Your task to perform on an android device: Turn off the flashlight Image 0: 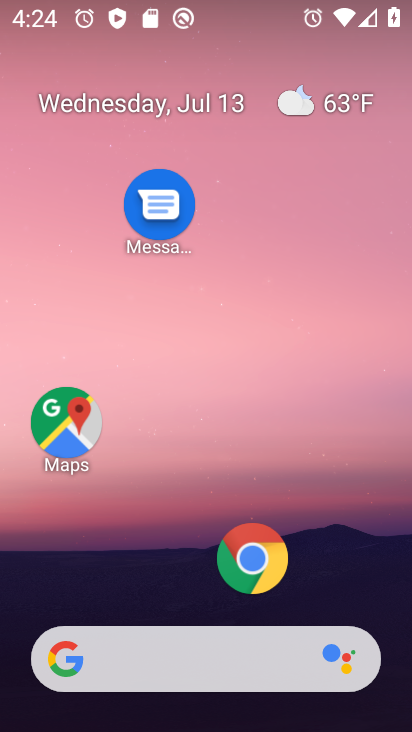
Step 0: drag from (223, 8) to (207, 534)
Your task to perform on an android device: Turn off the flashlight Image 1: 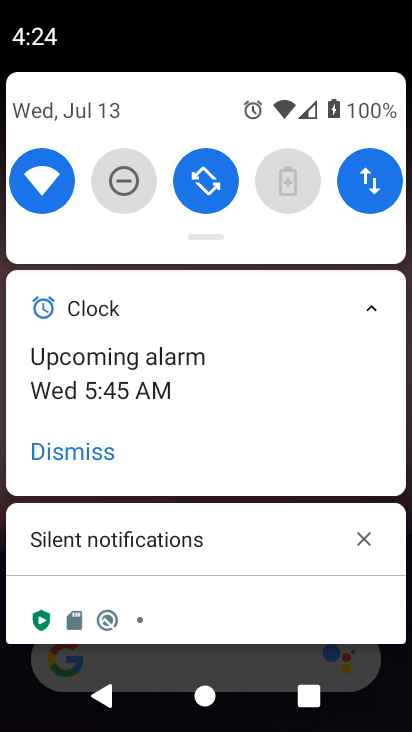
Step 1: drag from (212, 200) to (227, 501)
Your task to perform on an android device: Turn off the flashlight Image 2: 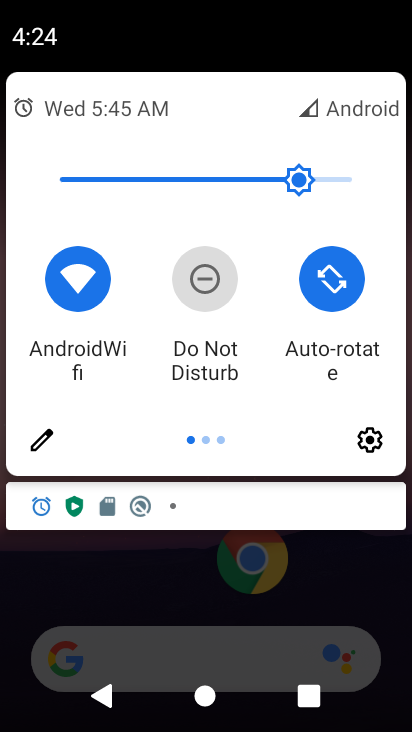
Step 2: drag from (318, 330) to (10, 322)
Your task to perform on an android device: Turn off the flashlight Image 3: 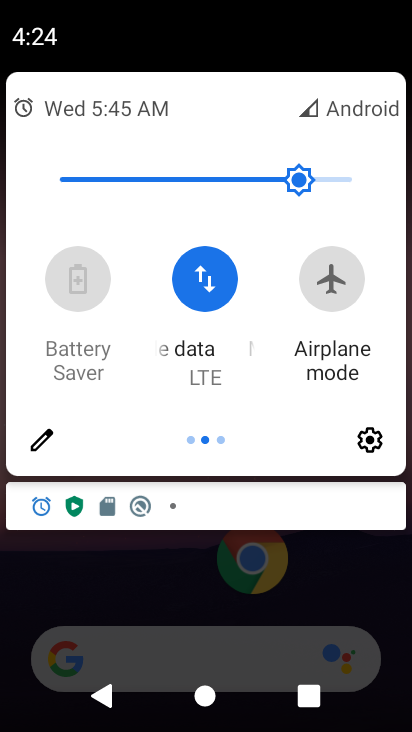
Step 3: drag from (319, 316) to (50, 406)
Your task to perform on an android device: Turn off the flashlight Image 4: 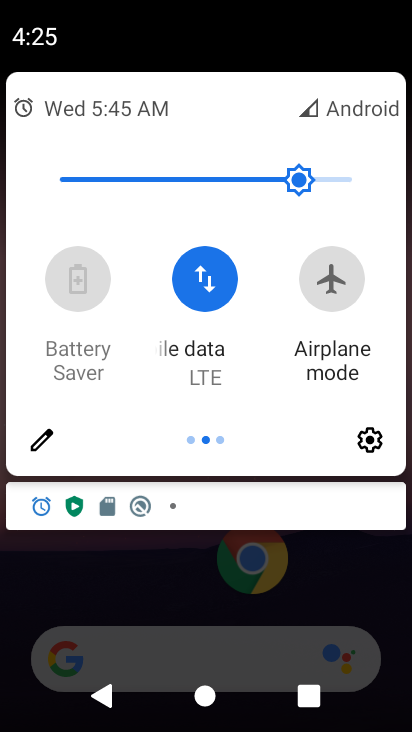
Step 4: drag from (359, 361) to (1, 453)
Your task to perform on an android device: Turn off the flashlight Image 5: 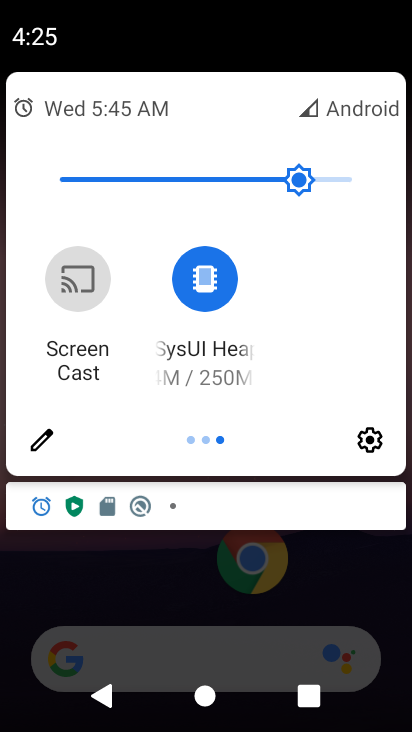
Step 5: click (42, 442)
Your task to perform on an android device: Turn off the flashlight Image 6: 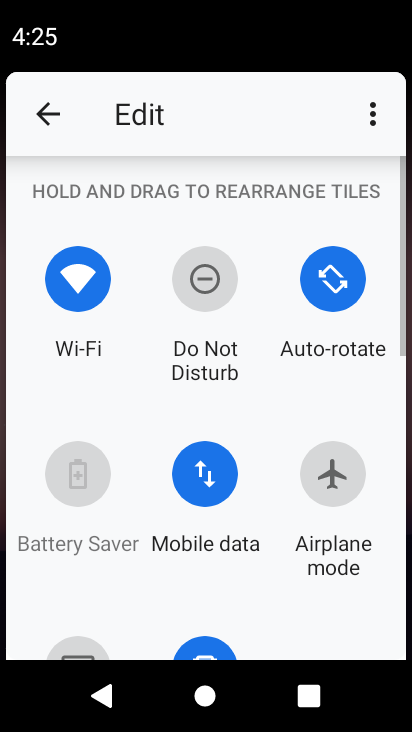
Step 6: task complete